Your task to perform on an android device: Search for seafood restaurants on Google Maps Image 0: 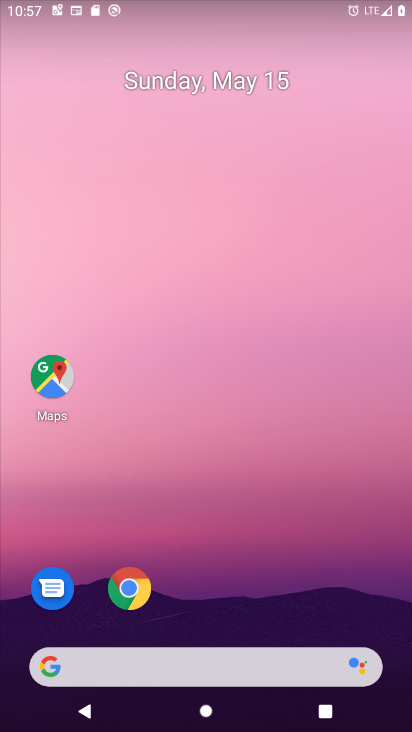
Step 0: click (47, 380)
Your task to perform on an android device: Search for seafood restaurants on Google Maps Image 1: 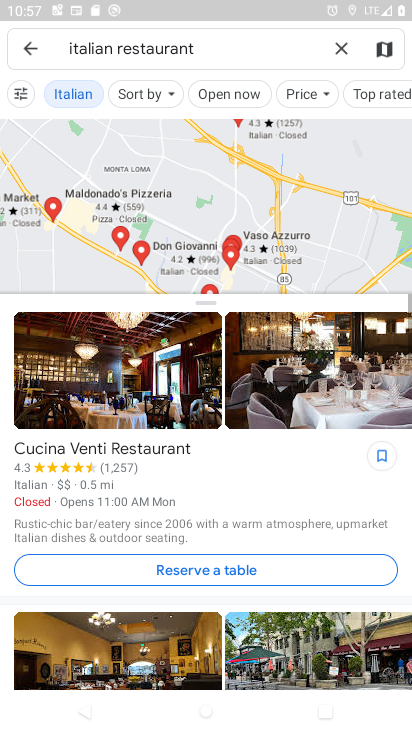
Step 1: click (342, 41)
Your task to perform on an android device: Search for seafood restaurants on Google Maps Image 2: 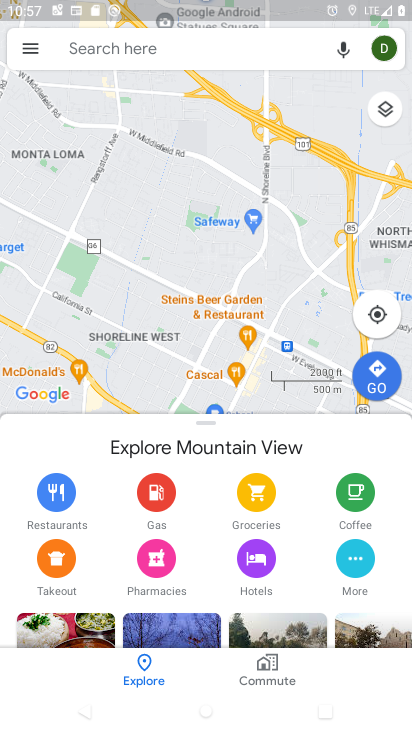
Step 2: click (208, 50)
Your task to perform on an android device: Search for seafood restaurants on Google Maps Image 3: 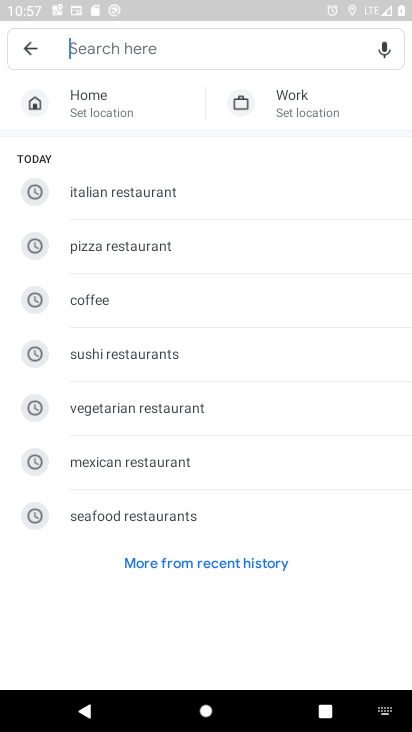
Step 3: click (169, 506)
Your task to perform on an android device: Search for seafood restaurants on Google Maps Image 4: 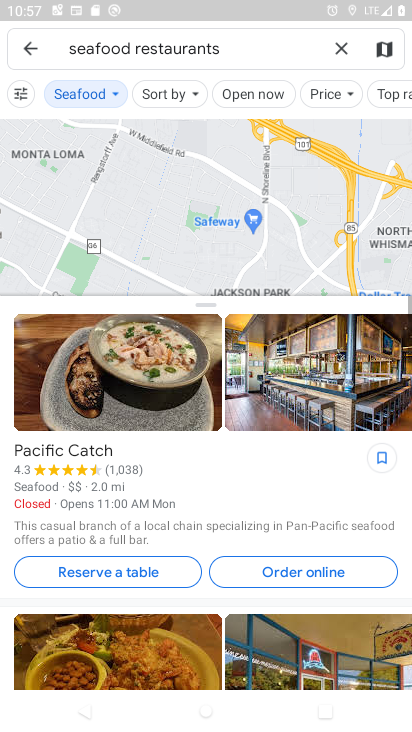
Step 4: task complete